Your task to perform on an android device: open sync settings in chrome Image 0: 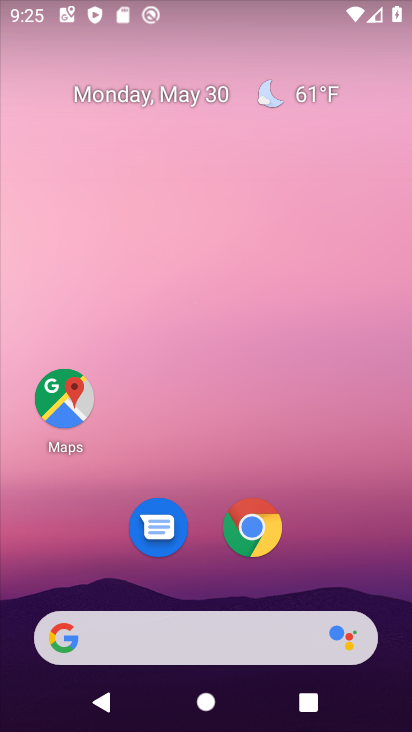
Step 0: click (257, 517)
Your task to perform on an android device: open sync settings in chrome Image 1: 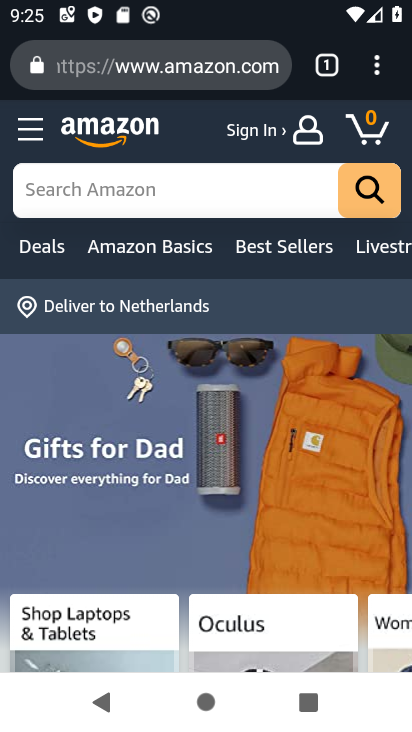
Step 1: click (366, 66)
Your task to perform on an android device: open sync settings in chrome Image 2: 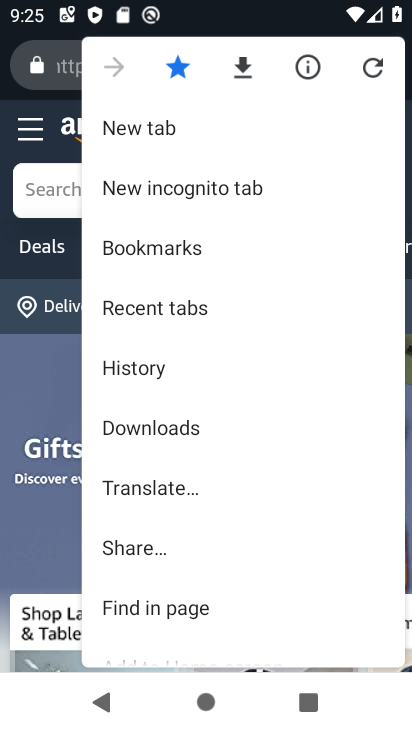
Step 2: drag from (156, 598) to (132, 263)
Your task to perform on an android device: open sync settings in chrome Image 3: 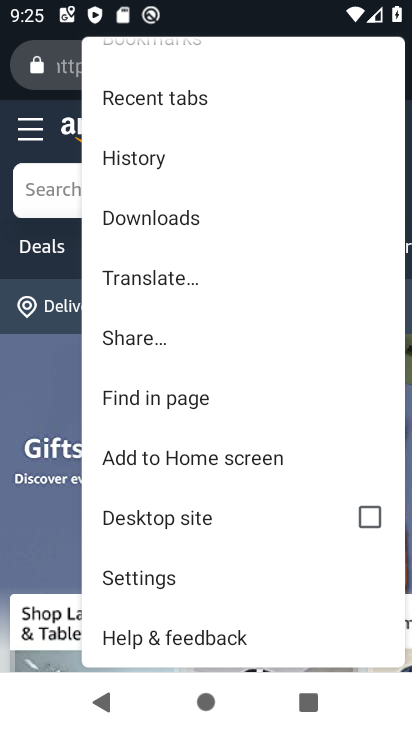
Step 3: click (185, 581)
Your task to perform on an android device: open sync settings in chrome Image 4: 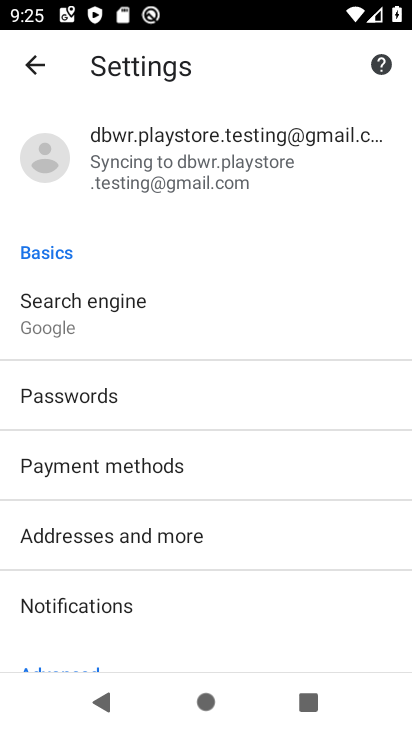
Step 4: click (119, 169)
Your task to perform on an android device: open sync settings in chrome Image 5: 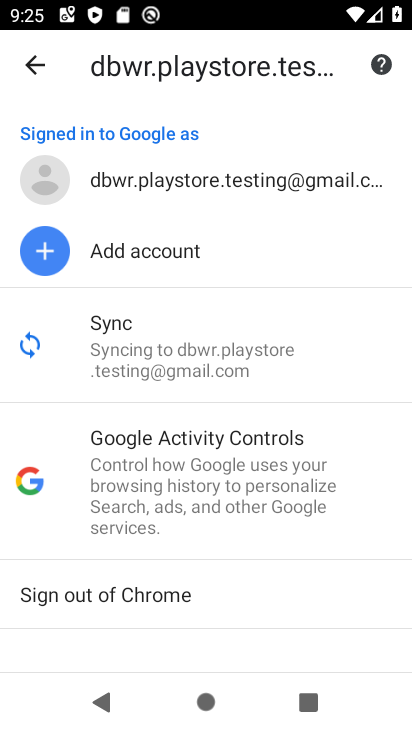
Step 5: click (189, 352)
Your task to perform on an android device: open sync settings in chrome Image 6: 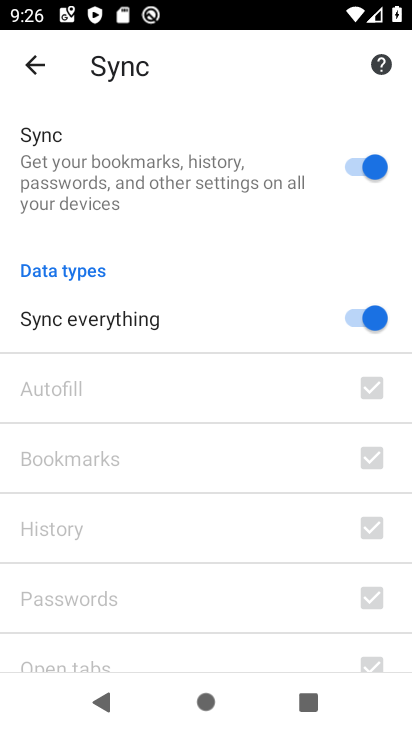
Step 6: task complete